Your task to perform on an android device: turn on javascript in the chrome app Image 0: 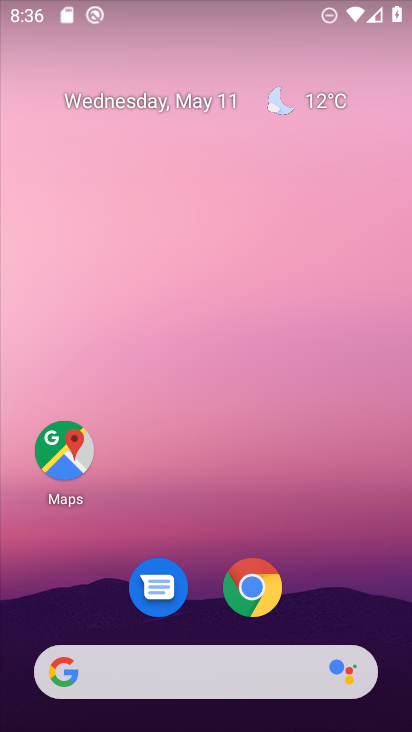
Step 0: click (272, 586)
Your task to perform on an android device: turn on javascript in the chrome app Image 1: 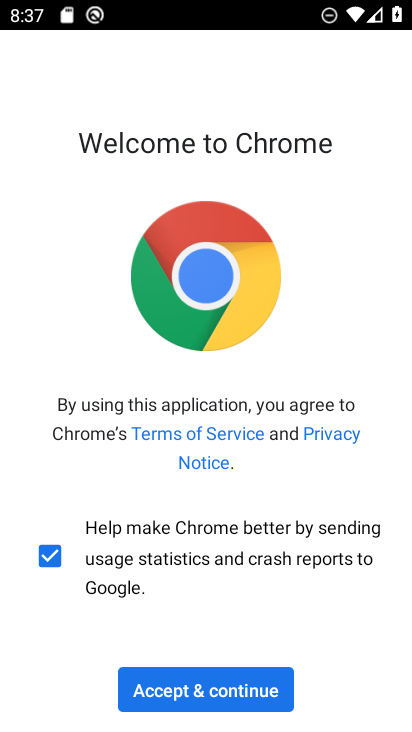
Step 1: click (186, 687)
Your task to perform on an android device: turn on javascript in the chrome app Image 2: 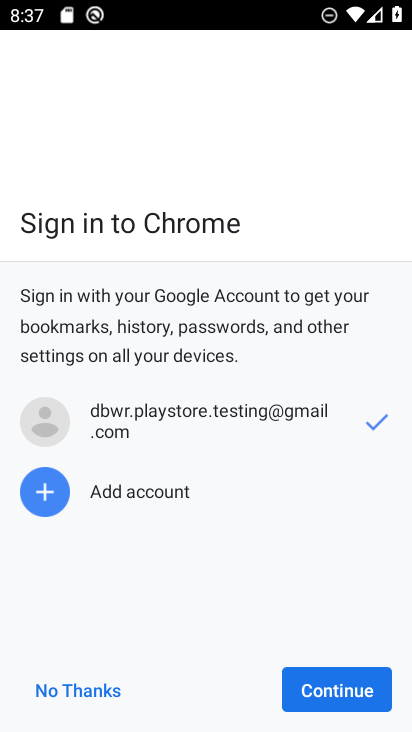
Step 2: click (339, 683)
Your task to perform on an android device: turn on javascript in the chrome app Image 3: 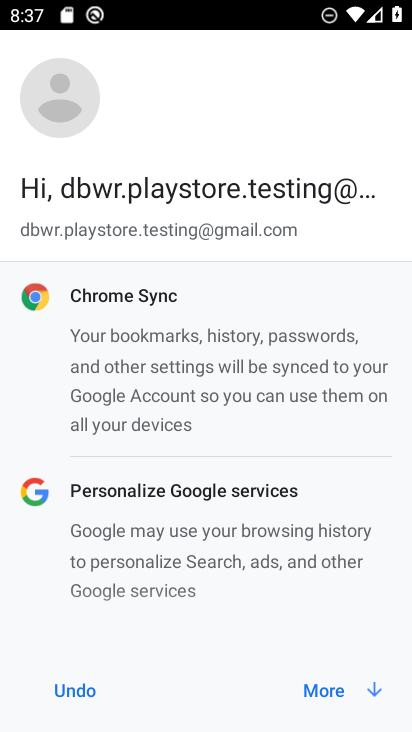
Step 3: click (339, 683)
Your task to perform on an android device: turn on javascript in the chrome app Image 4: 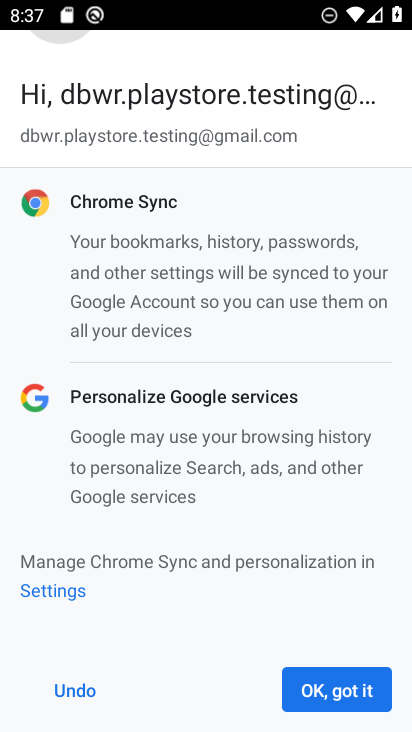
Step 4: click (339, 683)
Your task to perform on an android device: turn on javascript in the chrome app Image 5: 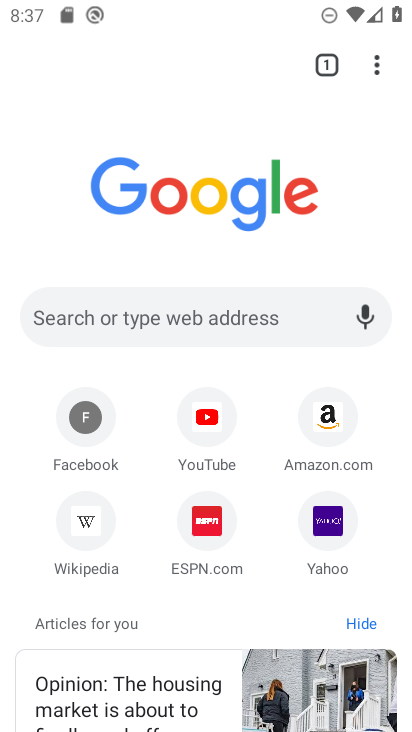
Step 5: click (374, 77)
Your task to perform on an android device: turn on javascript in the chrome app Image 6: 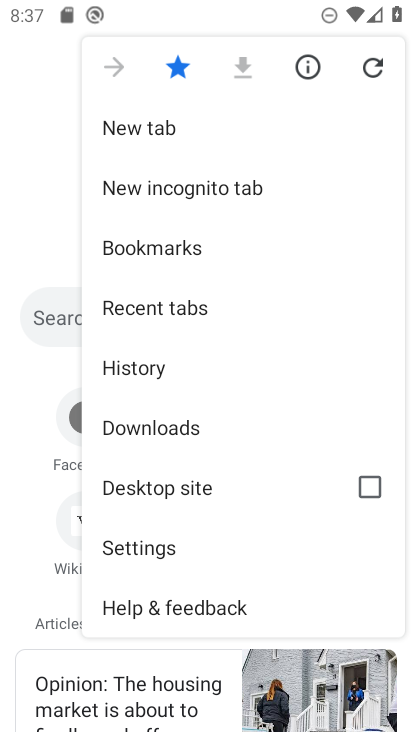
Step 6: click (174, 553)
Your task to perform on an android device: turn on javascript in the chrome app Image 7: 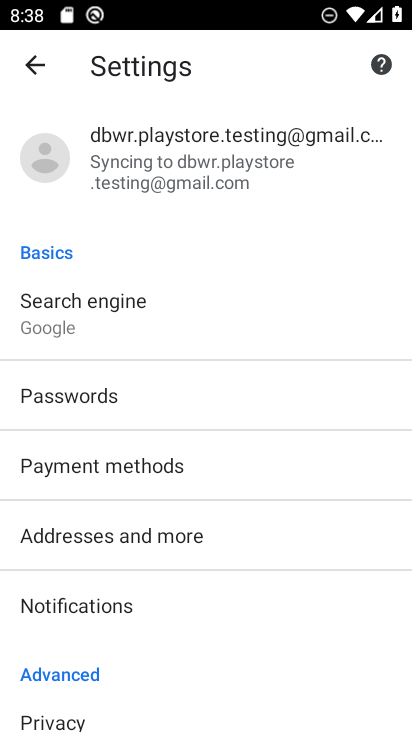
Step 7: drag from (188, 615) to (118, 374)
Your task to perform on an android device: turn on javascript in the chrome app Image 8: 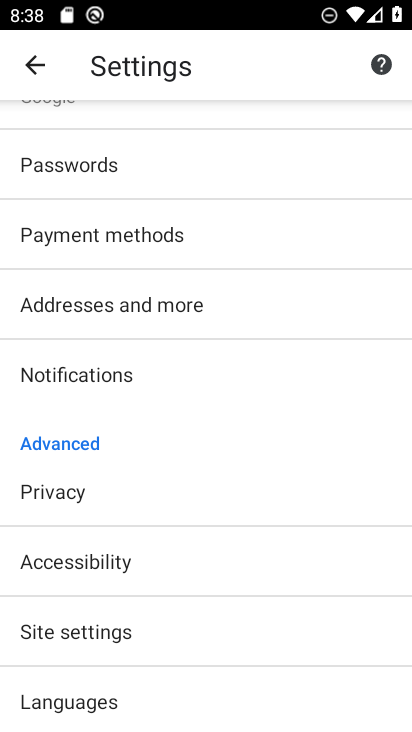
Step 8: click (178, 621)
Your task to perform on an android device: turn on javascript in the chrome app Image 9: 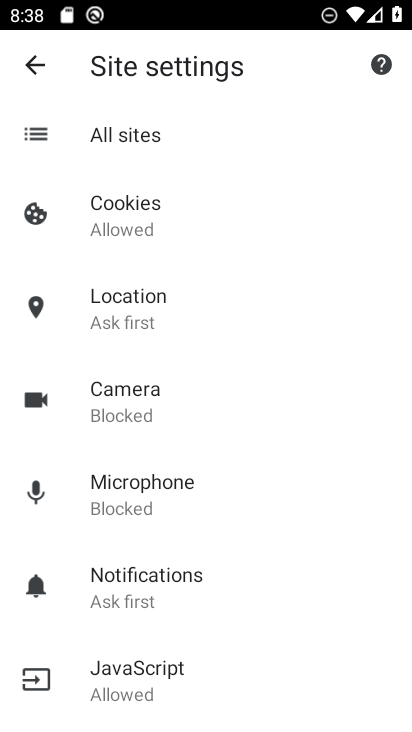
Step 9: drag from (276, 604) to (229, 447)
Your task to perform on an android device: turn on javascript in the chrome app Image 10: 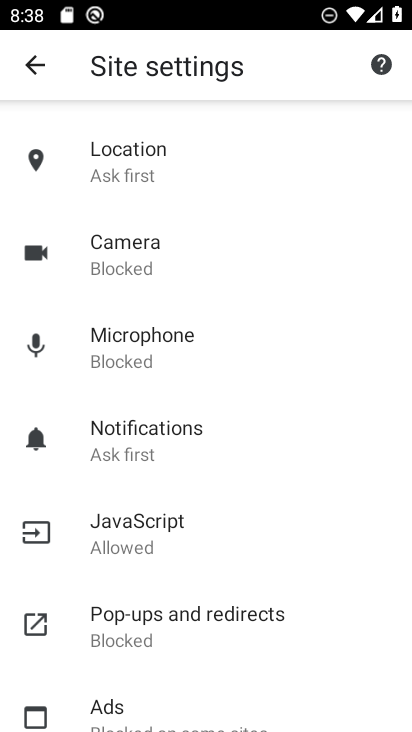
Step 10: click (177, 516)
Your task to perform on an android device: turn on javascript in the chrome app Image 11: 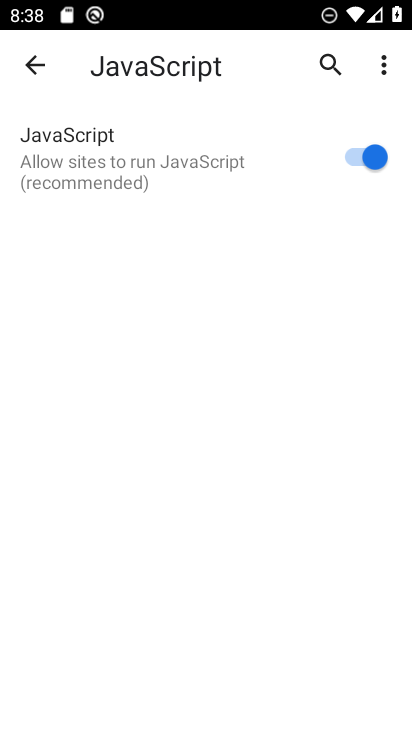
Step 11: task complete